Your task to perform on an android device: change your default location settings in chrome Image 0: 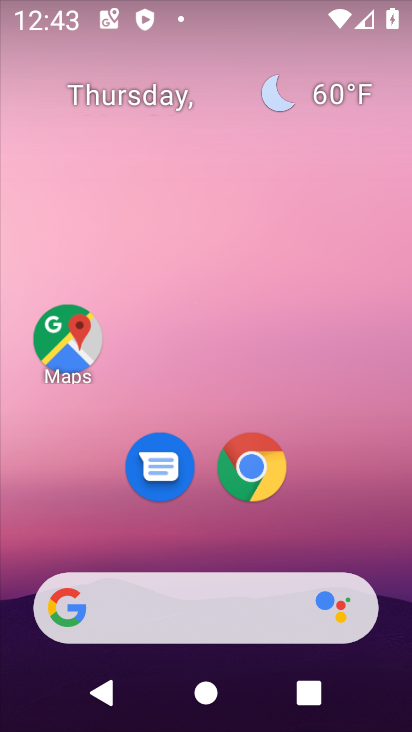
Step 0: drag from (177, 562) to (225, 154)
Your task to perform on an android device: change your default location settings in chrome Image 1: 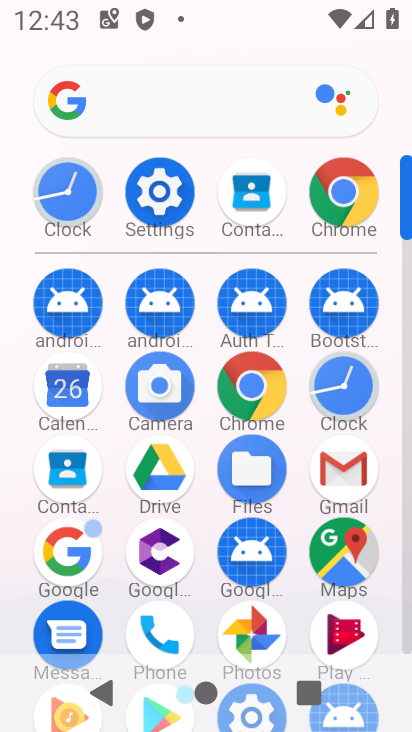
Step 1: click (261, 390)
Your task to perform on an android device: change your default location settings in chrome Image 2: 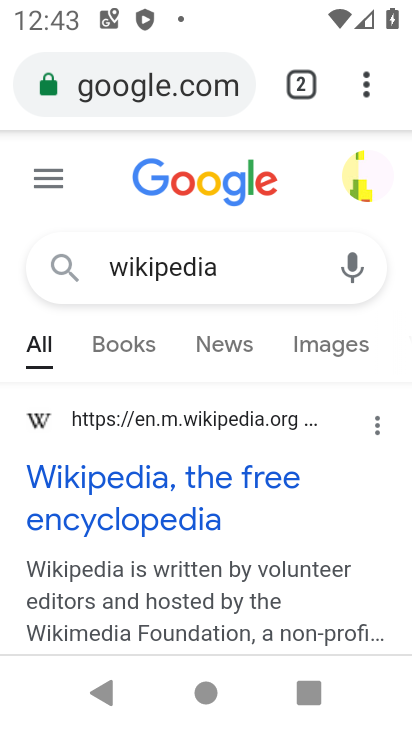
Step 2: click (356, 90)
Your task to perform on an android device: change your default location settings in chrome Image 3: 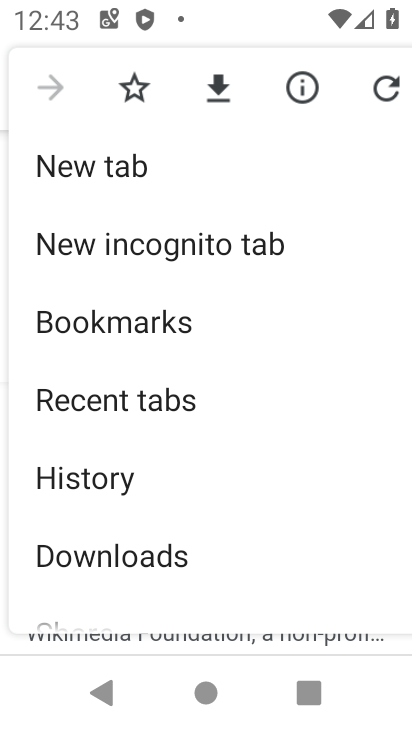
Step 3: drag from (163, 550) to (201, 75)
Your task to perform on an android device: change your default location settings in chrome Image 4: 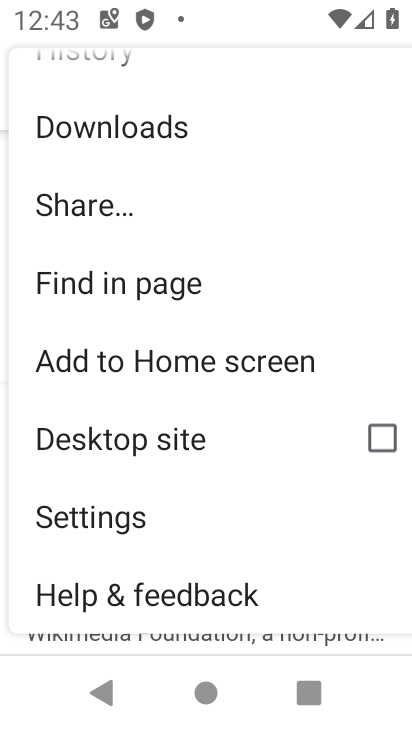
Step 4: click (118, 531)
Your task to perform on an android device: change your default location settings in chrome Image 5: 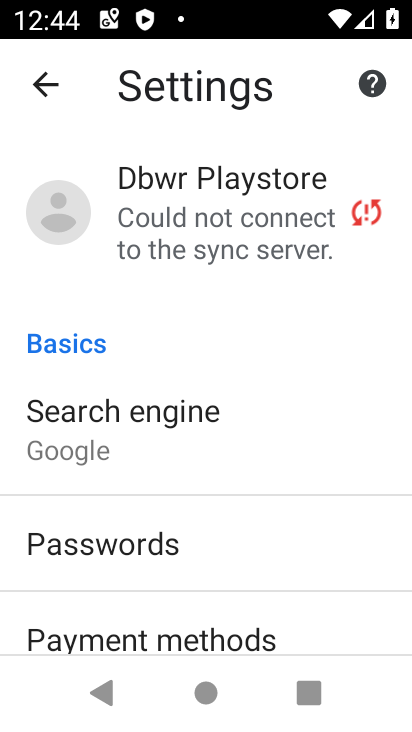
Step 5: drag from (213, 514) to (264, 140)
Your task to perform on an android device: change your default location settings in chrome Image 6: 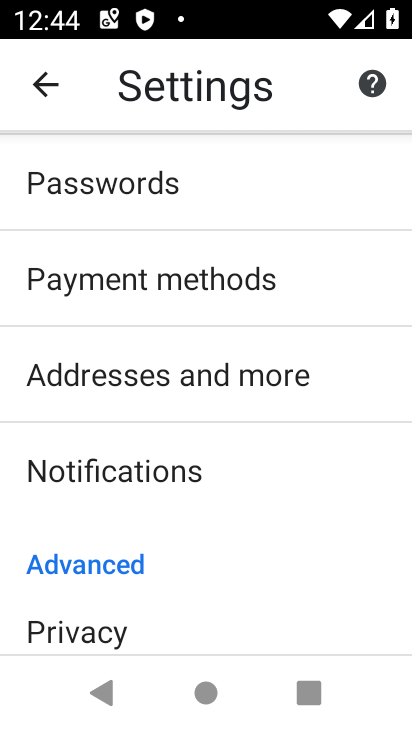
Step 6: drag from (174, 521) to (217, 235)
Your task to perform on an android device: change your default location settings in chrome Image 7: 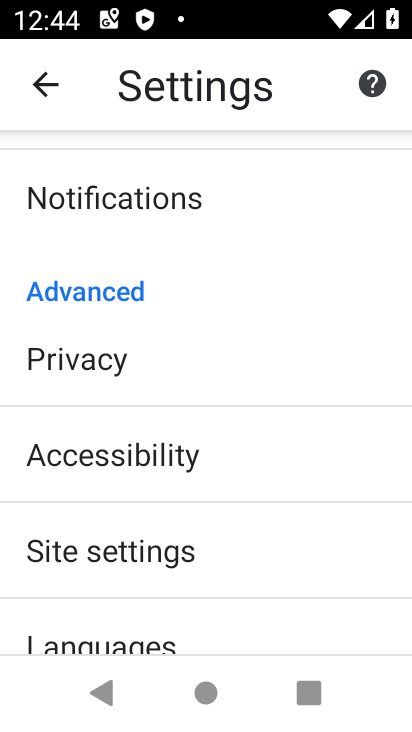
Step 7: click (151, 569)
Your task to perform on an android device: change your default location settings in chrome Image 8: 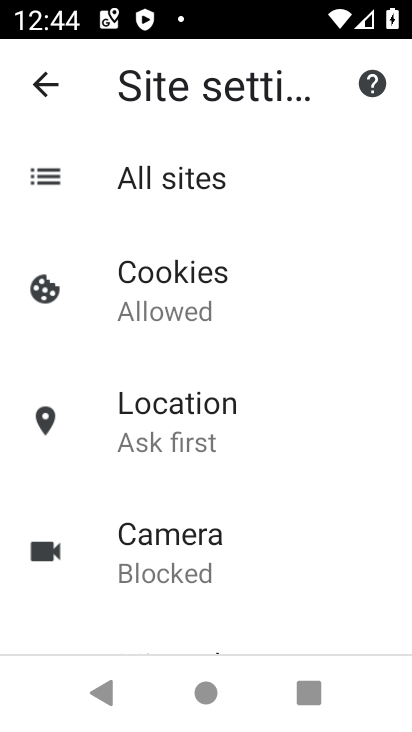
Step 8: click (178, 439)
Your task to perform on an android device: change your default location settings in chrome Image 9: 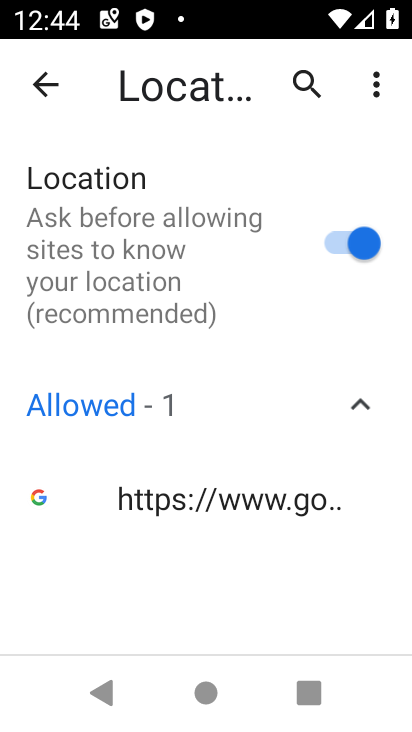
Step 9: click (321, 243)
Your task to perform on an android device: change your default location settings in chrome Image 10: 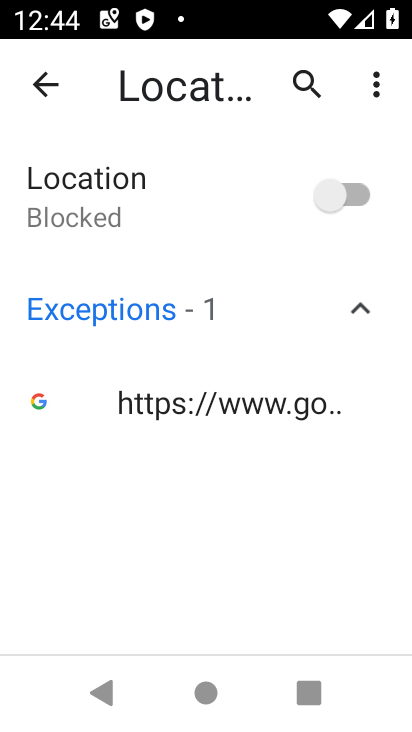
Step 10: task complete